Your task to perform on an android device: change the clock display to analog Image 0: 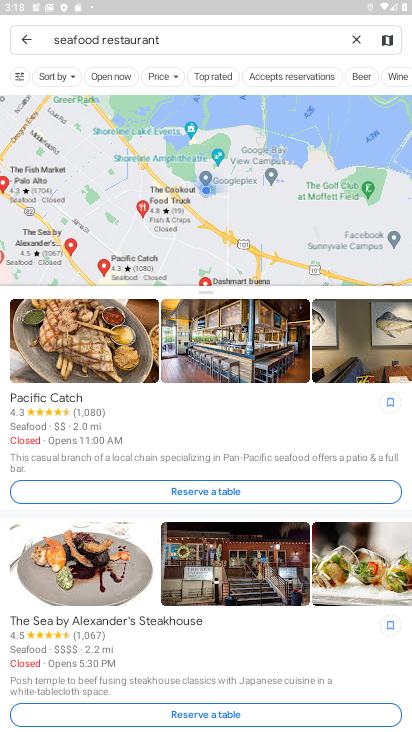
Step 0: press home button
Your task to perform on an android device: change the clock display to analog Image 1: 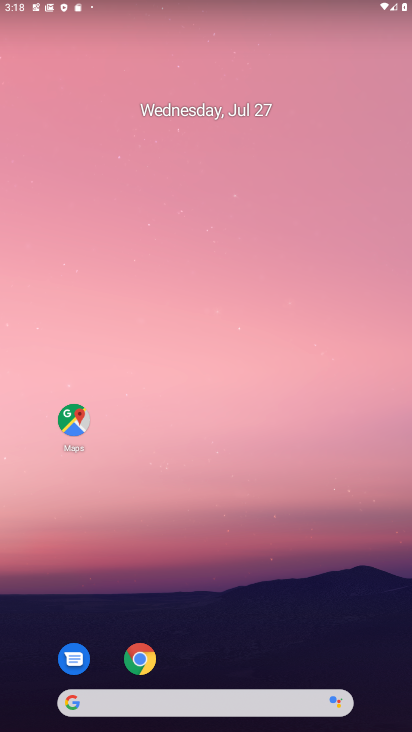
Step 1: drag from (198, 692) to (212, 3)
Your task to perform on an android device: change the clock display to analog Image 2: 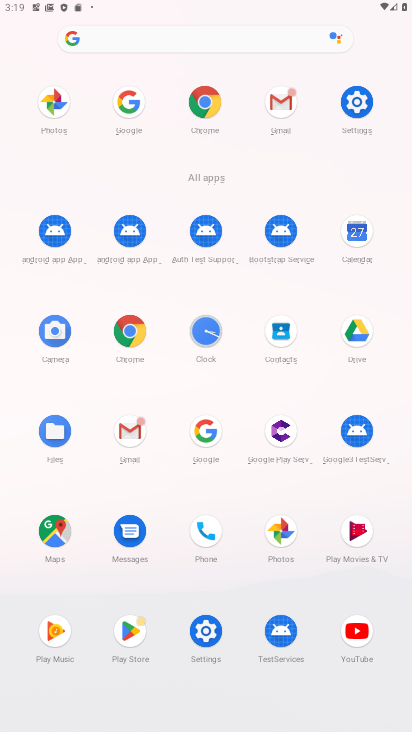
Step 2: click (200, 323)
Your task to perform on an android device: change the clock display to analog Image 3: 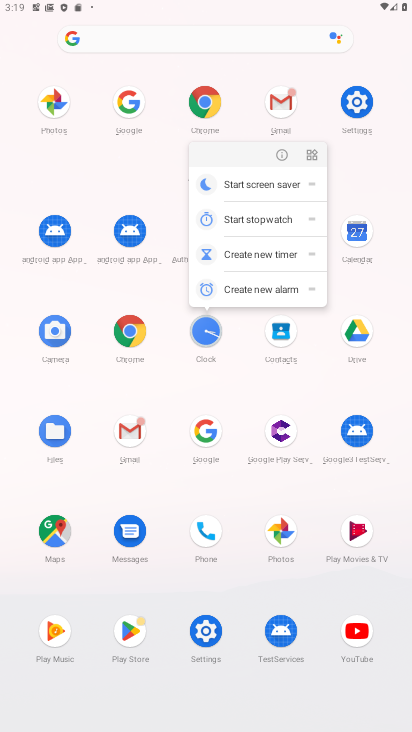
Step 3: click (204, 331)
Your task to perform on an android device: change the clock display to analog Image 4: 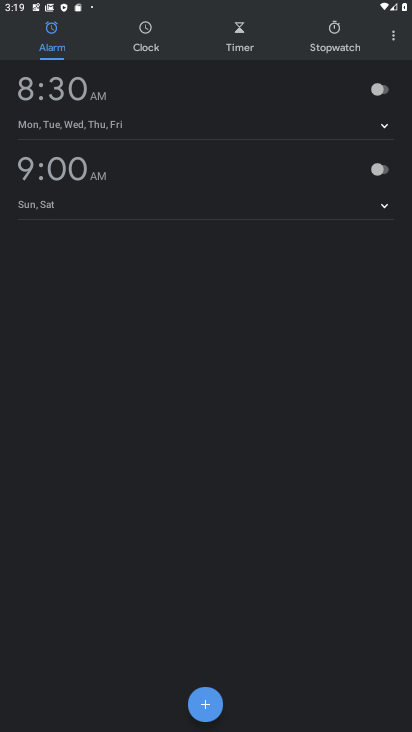
Step 4: click (393, 31)
Your task to perform on an android device: change the clock display to analog Image 5: 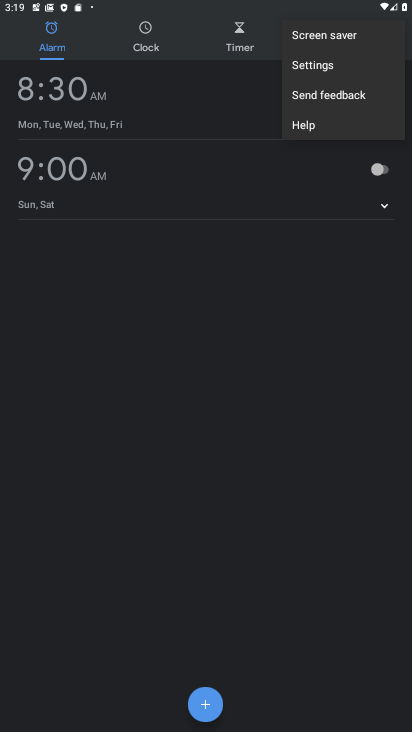
Step 5: click (333, 64)
Your task to perform on an android device: change the clock display to analog Image 6: 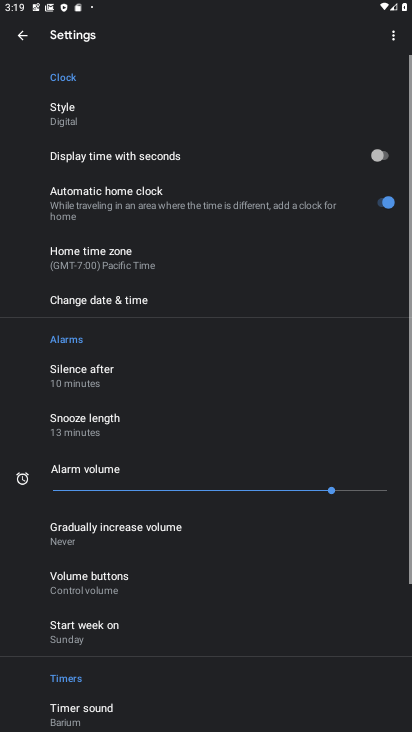
Step 6: click (70, 121)
Your task to perform on an android device: change the clock display to analog Image 7: 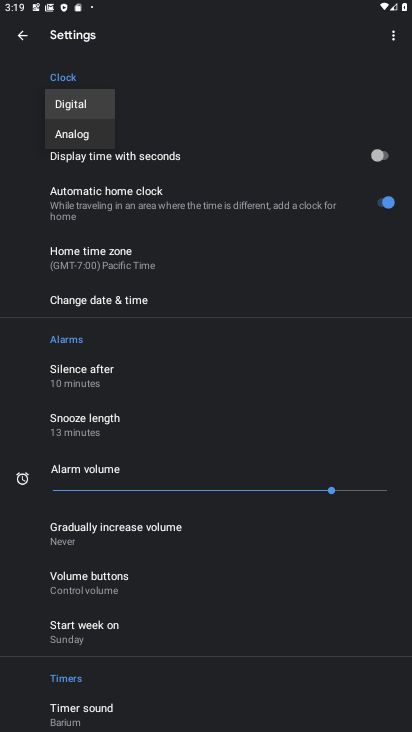
Step 7: click (75, 132)
Your task to perform on an android device: change the clock display to analog Image 8: 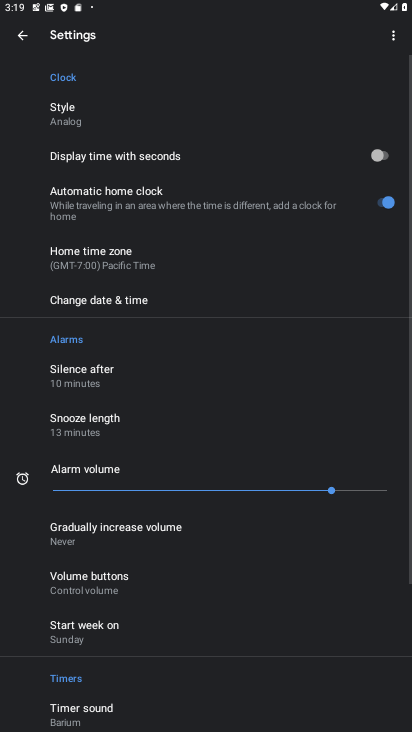
Step 8: task complete